Your task to perform on an android device: toggle translation in the chrome app Image 0: 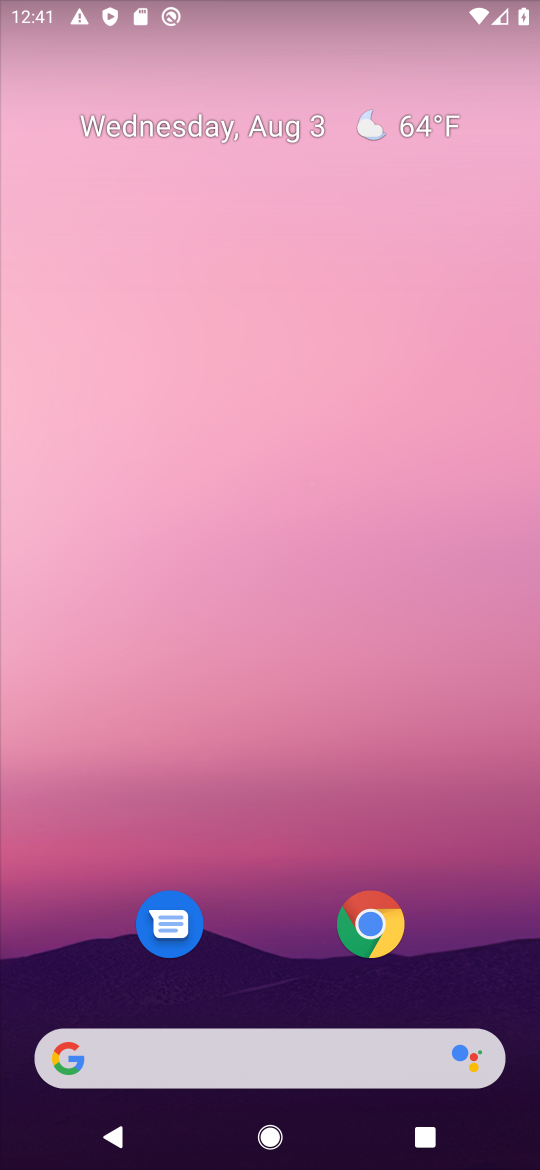
Step 0: click (320, 903)
Your task to perform on an android device: toggle translation in the chrome app Image 1: 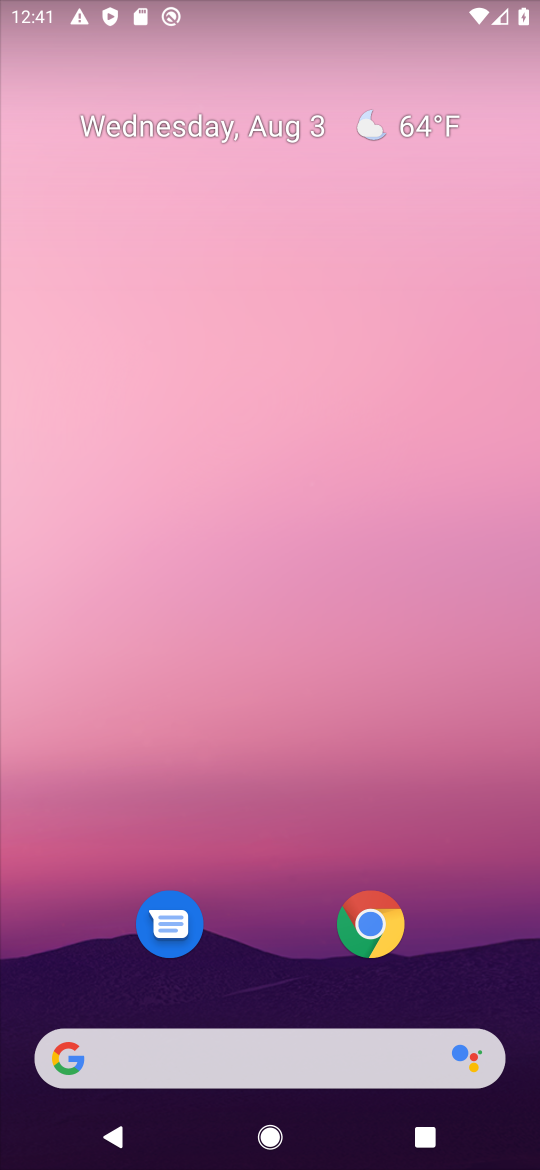
Step 1: click (350, 914)
Your task to perform on an android device: toggle translation in the chrome app Image 2: 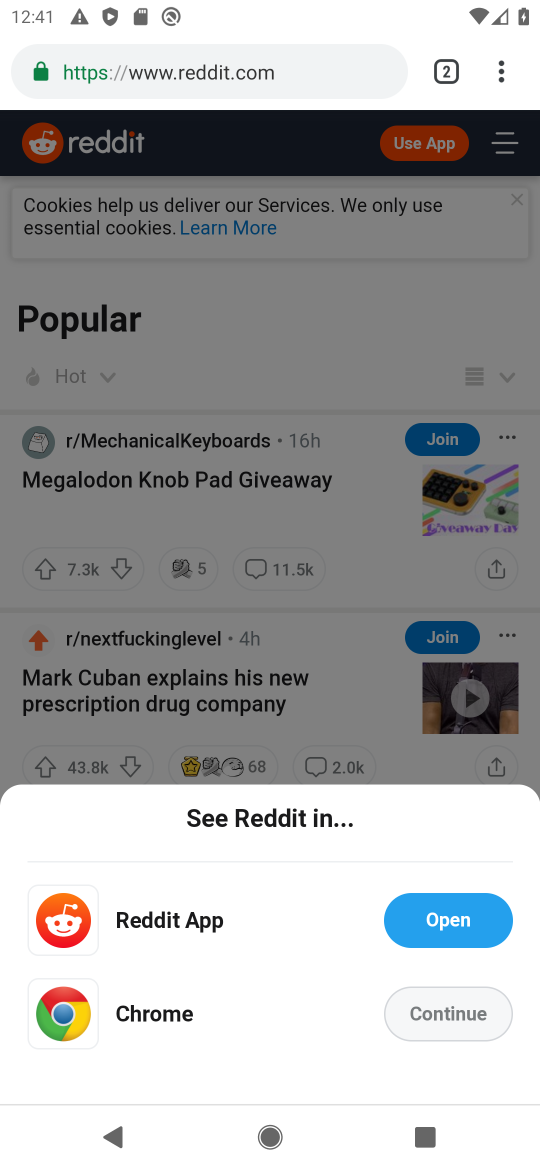
Step 2: drag from (505, 63) to (271, 880)
Your task to perform on an android device: toggle translation in the chrome app Image 3: 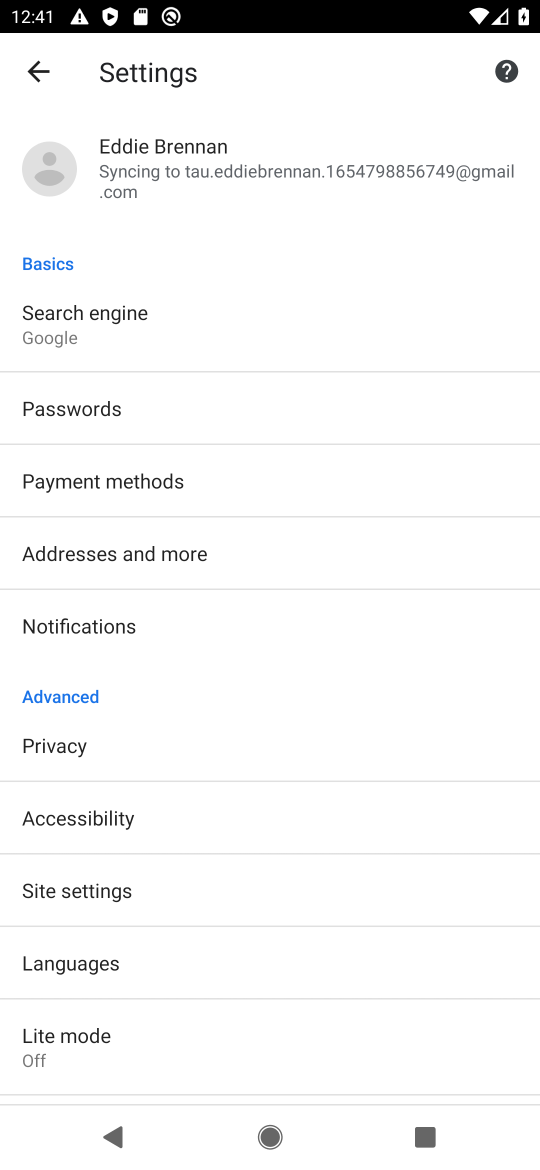
Step 3: click (81, 957)
Your task to perform on an android device: toggle translation in the chrome app Image 4: 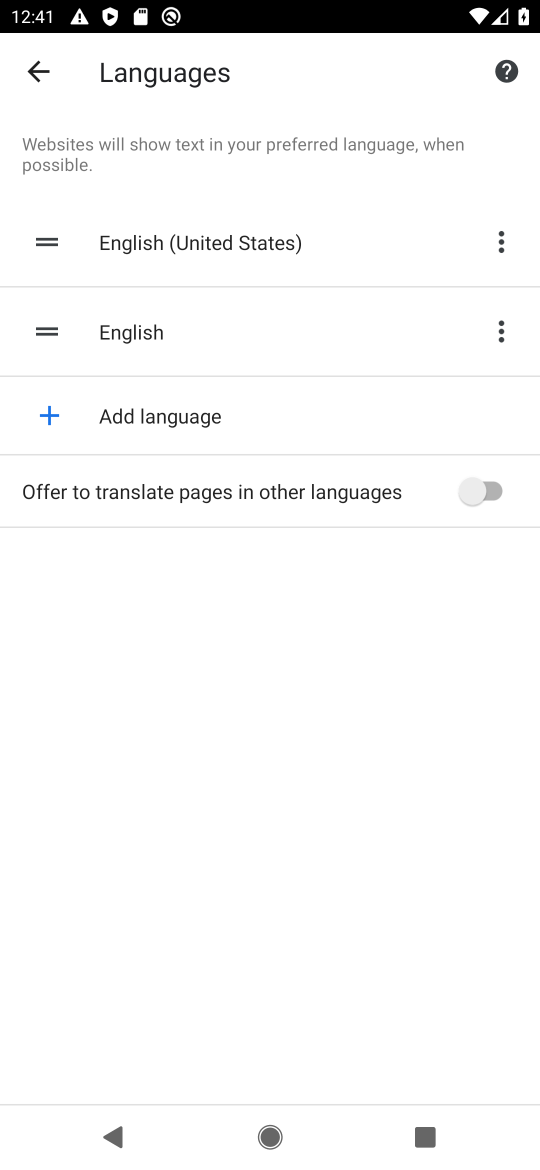
Step 4: click (478, 504)
Your task to perform on an android device: toggle translation in the chrome app Image 5: 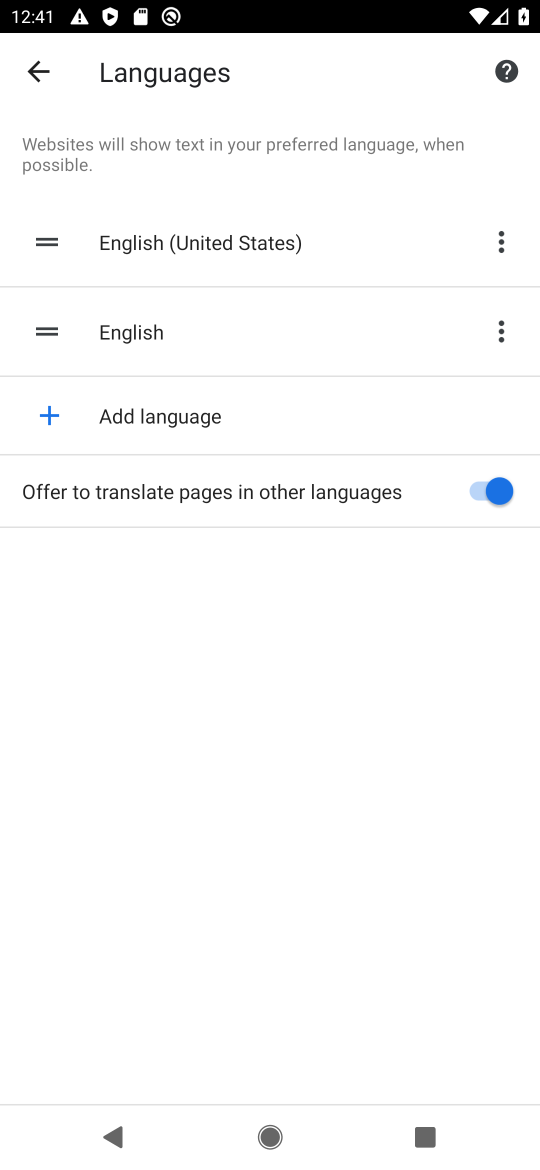
Step 5: task complete